Your task to perform on an android device: check battery use Image 0: 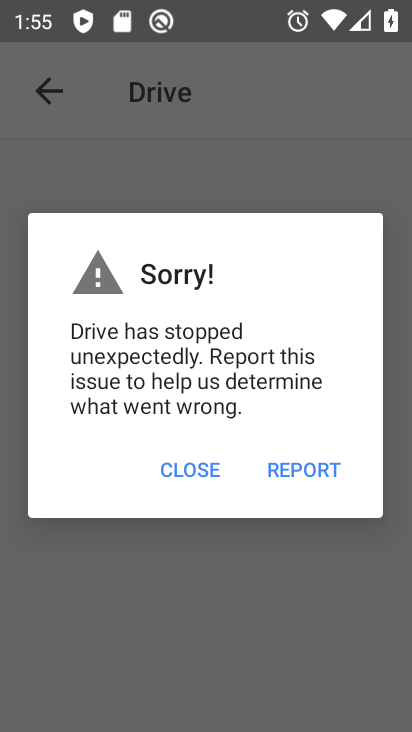
Step 0: drag from (373, 522) to (364, 97)
Your task to perform on an android device: check battery use Image 1: 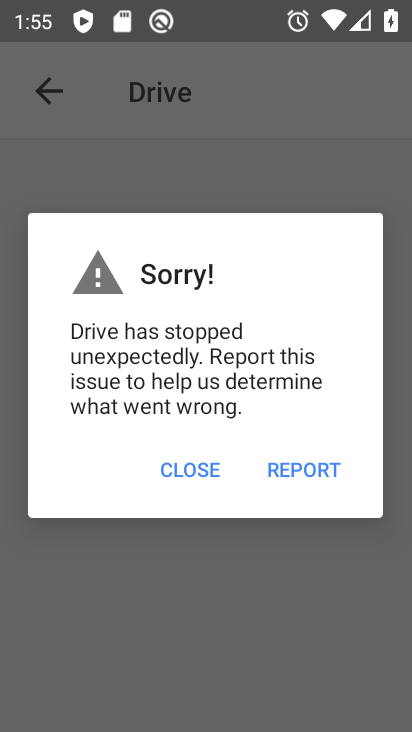
Step 1: press home button
Your task to perform on an android device: check battery use Image 2: 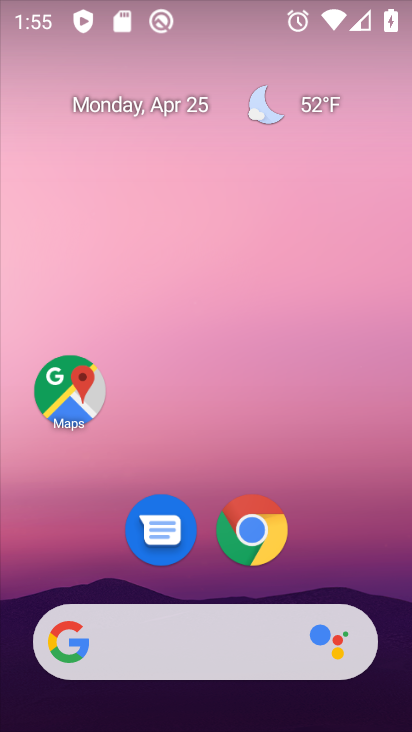
Step 2: drag from (339, 214) to (331, 136)
Your task to perform on an android device: check battery use Image 3: 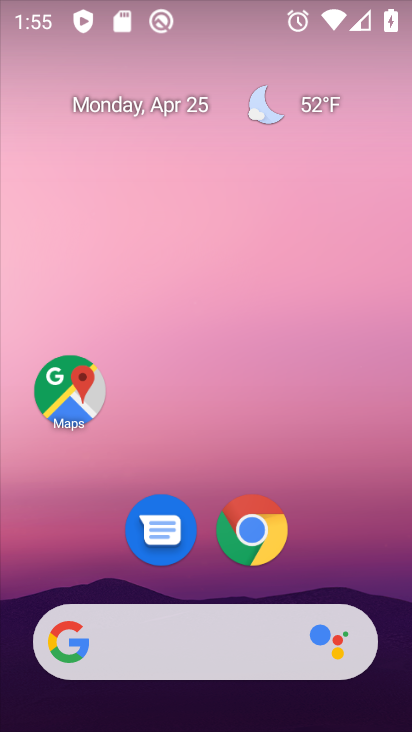
Step 3: drag from (365, 579) to (370, 124)
Your task to perform on an android device: check battery use Image 4: 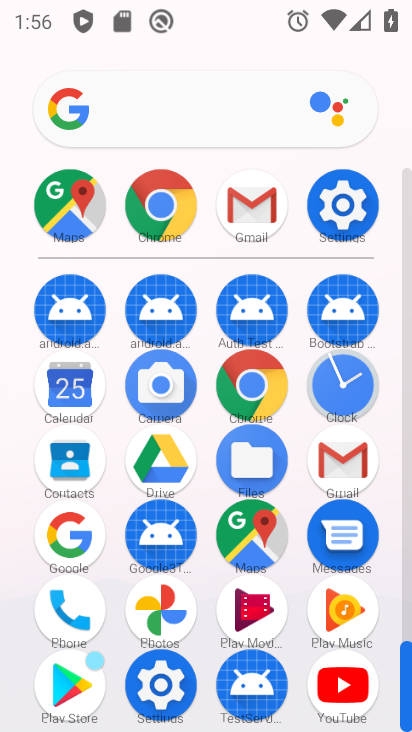
Step 4: click (320, 208)
Your task to perform on an android device: check battery use Image 5: 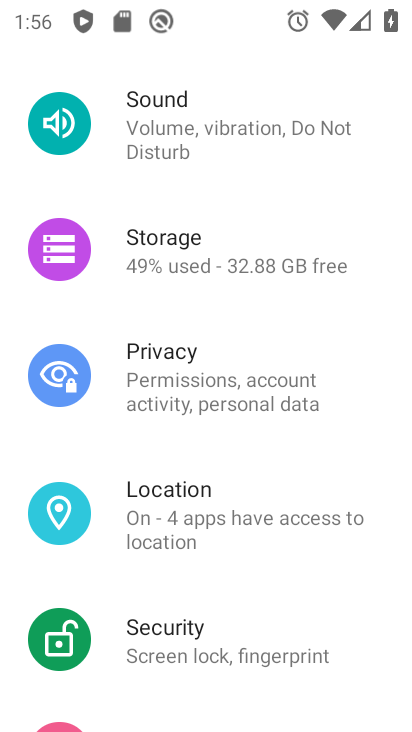
Step 5: drag from (291, 297) to (284, 542)
Your task to perform on an android device: check battery use Image 6: 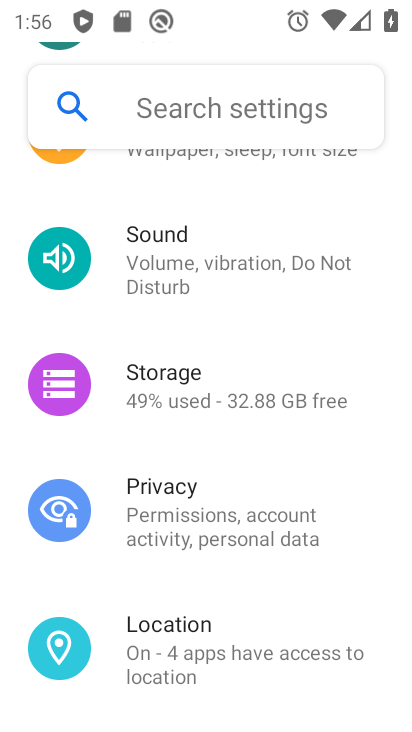
Step 6: drag from (271, 230) to (282, 578)
Your task to perform on an android device: check battery use Image 7: 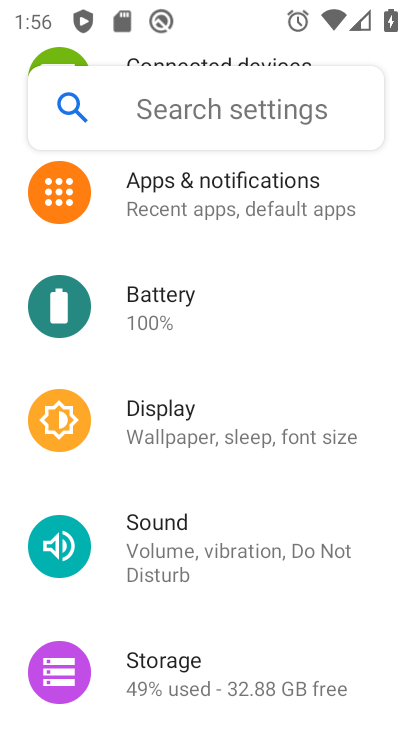
Step 7: drag from (265, 301) to (254, 614)
Your task to perform on an android device: check battery use Image 8: 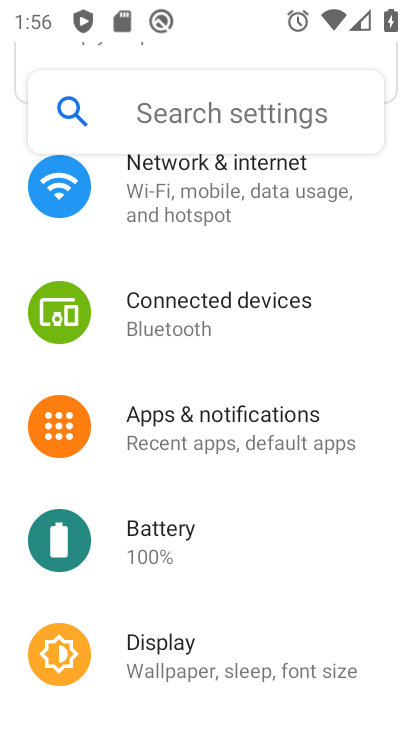
Step 8: click (199, 553)
Your task to perform on an android device: check battery use Image 9: 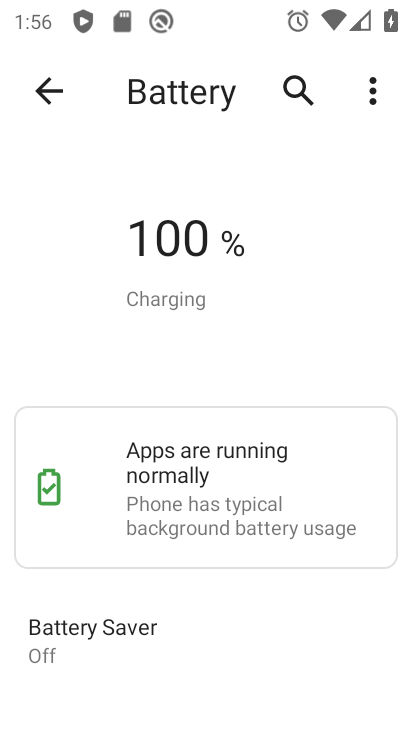
Step 9: task complete